Your task to perform on an android device: toggle improve location accuracy Image 0: 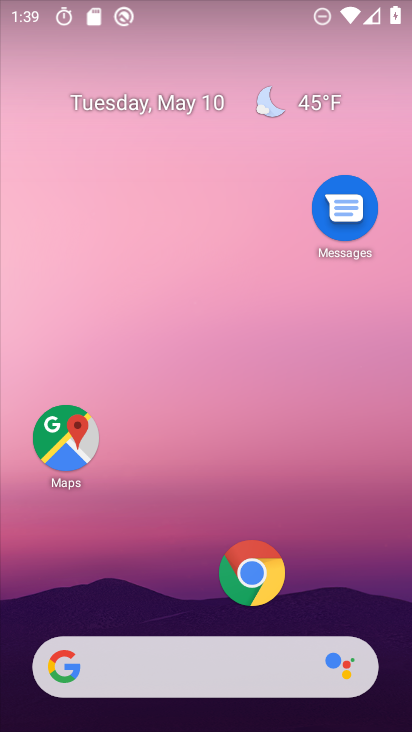
Step 0: drag from (221, 544) to (309, 212)
Your task to perform on an android device: toggle improve location accuracy Image 1: 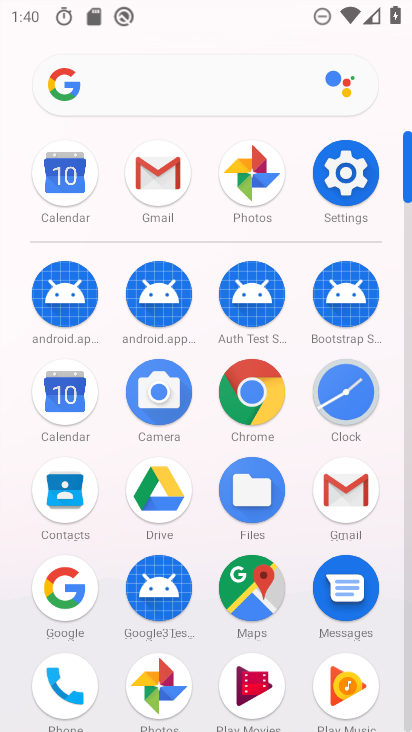
Step 1: click (359, 171)
Your task to perform on an android device: toggle improve location accuracy Image 2: 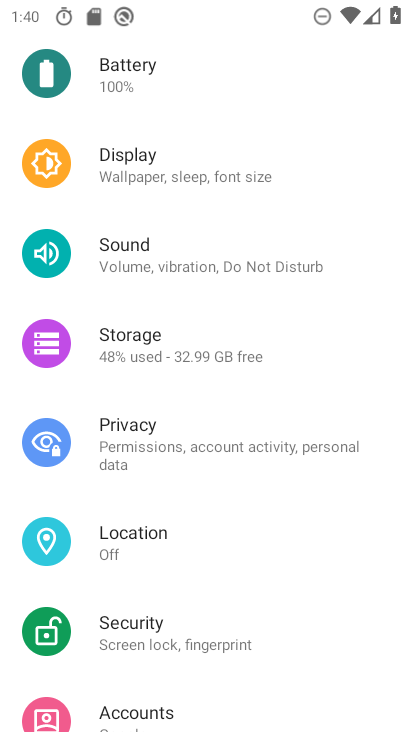
Step 2: drag from (213, 597) to (285, 181)
Your task to perform on an android device: toggle improve location accuracy Image 3: 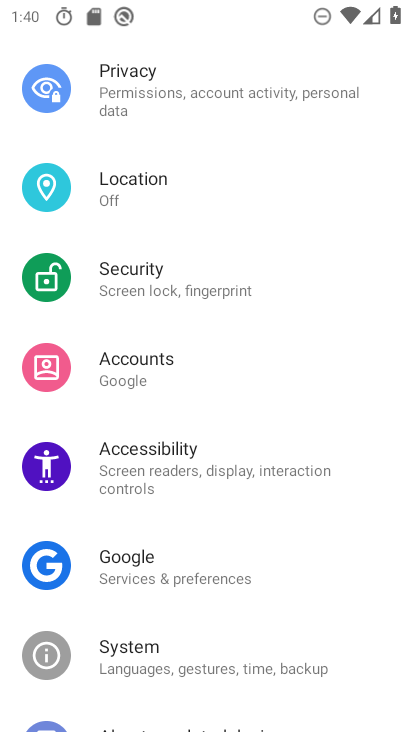
Step 3: drag from (185, 650) to (204, 540)
Your task to perform on an android device: toggle improve location accuracy Image 4: 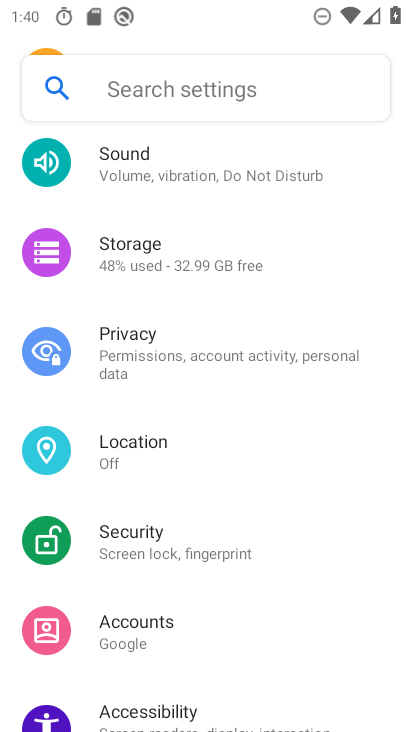
Step 4: click (155, 444)
Your task to perform on an android device: toggle improve location accuracy Image 5: 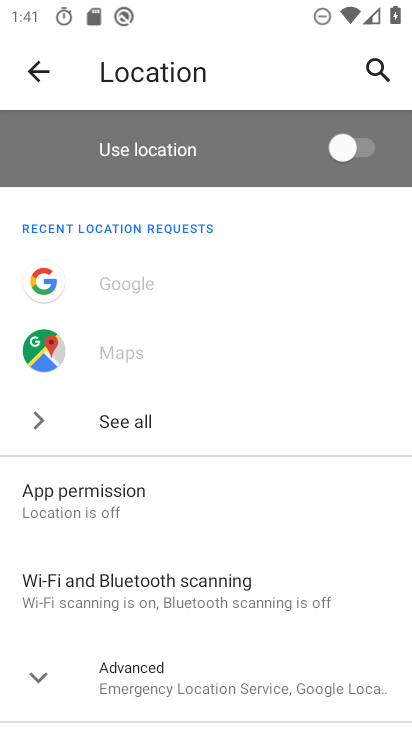
Step 5: drag from (160, 561) to (190, 221)
Your task to perform on an android device: toggle improve location accuracy Image 6: 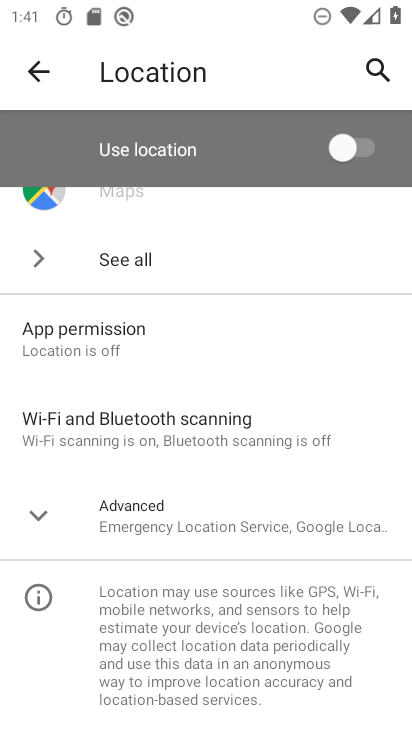
Step 6: click (137, 515)
Your task to perform on an android device: toggle improve location accuracy Image 7: 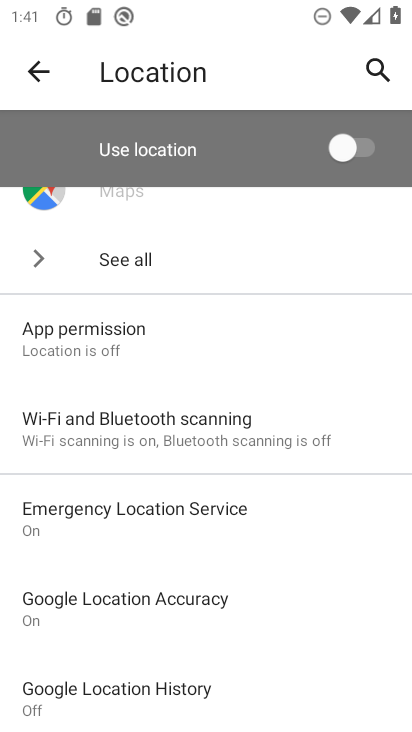
Step 7: click (142, 601)
Your task to perform on an android device: toggle improve location accuracy Image 8: 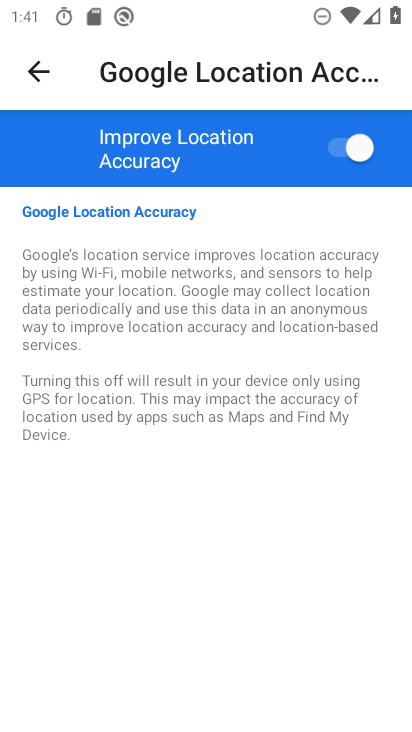
Step 8: click (339, 149)
Your task to perform on an android device: toggle improve location accuracy Image 9: 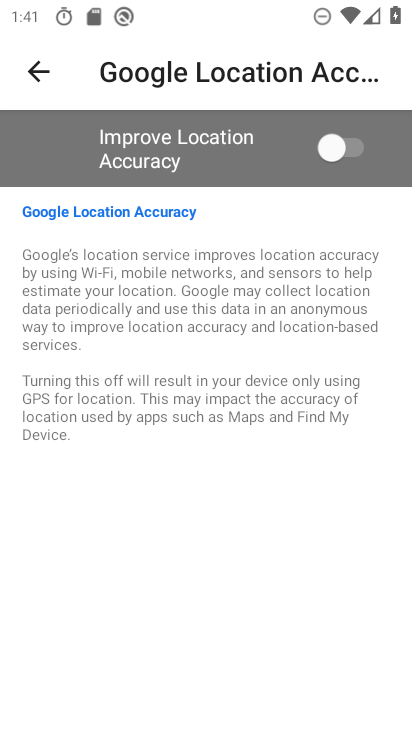
Step 9: task complete